Your task to perform on an android device: open the mobile data screen to see how much data has been used Image 0: 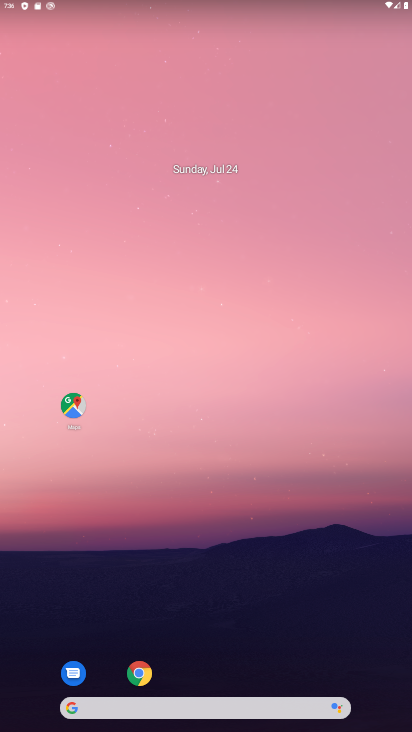
Step 0: drag from (225, 458) to (268, 60)
Your task to perform on an android device: open the mobile data screen to see how much data has been used Image 1: 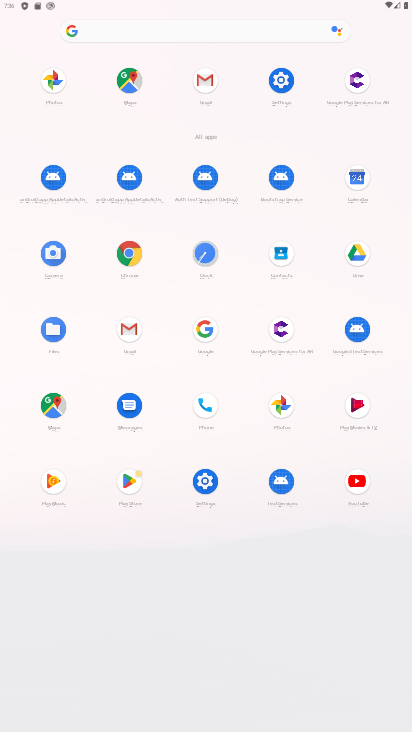
Step 1: click (276, 85)
Your task to perform on an android device: open the mobile data screen to see how much data has been used Image 2: 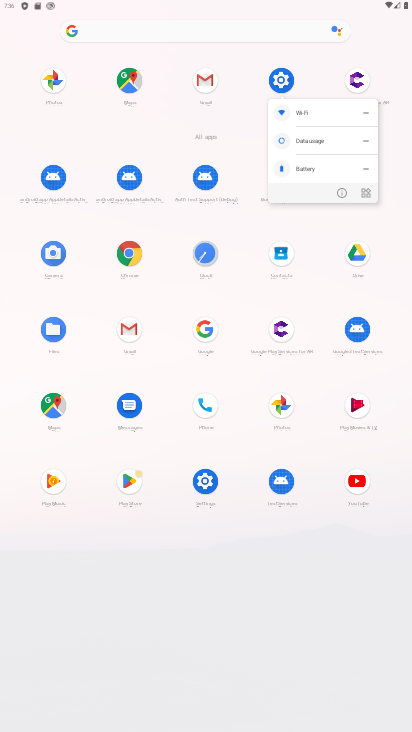
Step 2: click (345, 191)
Your task to perform on an android device: open the mobile data screen to see how much data has been used Image 3: 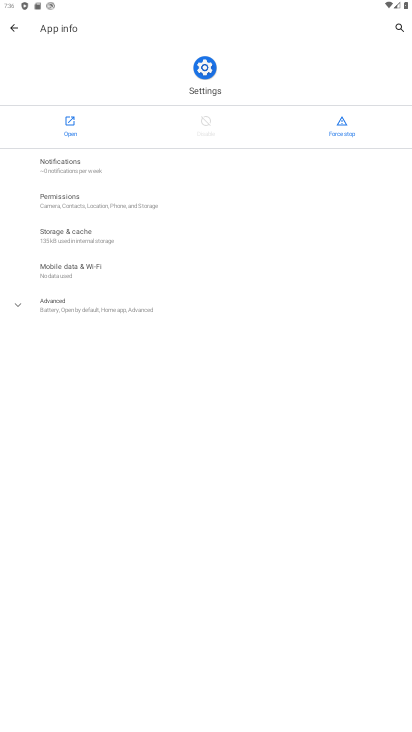
Step 3: click (72, 124)
Your task to perform on an android device: open the mobile data screen to see how much data has been used Image 4: 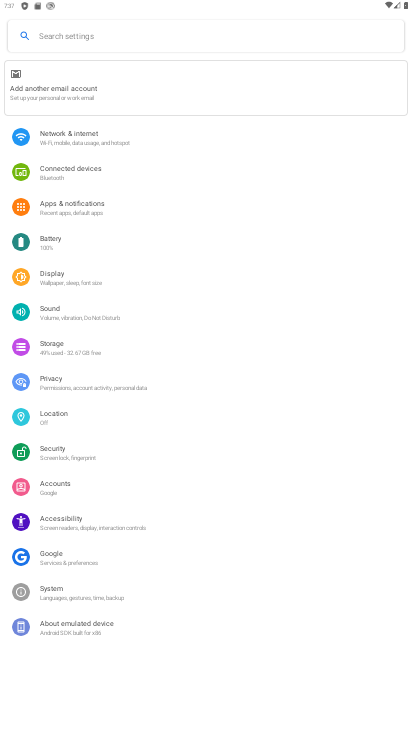
Step 4: click (89, 145)
Your task to perform on an android device: open the mobile data screen to see how much data has been used Image 5: 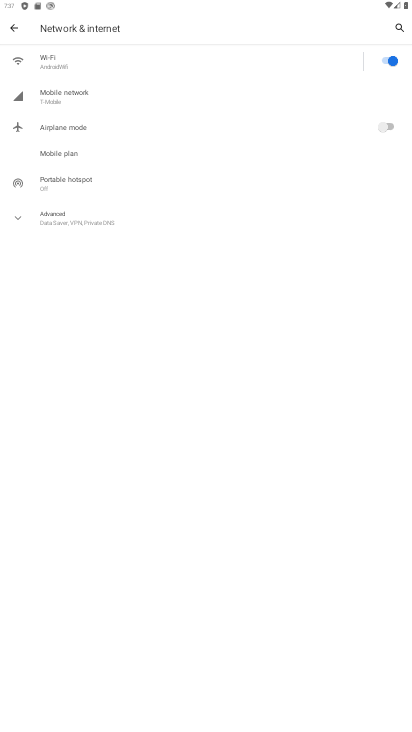
Step 5: click (108, 89)
Your task to perform on an android device: open the mobile data screen to see how much data has been used Image 6: 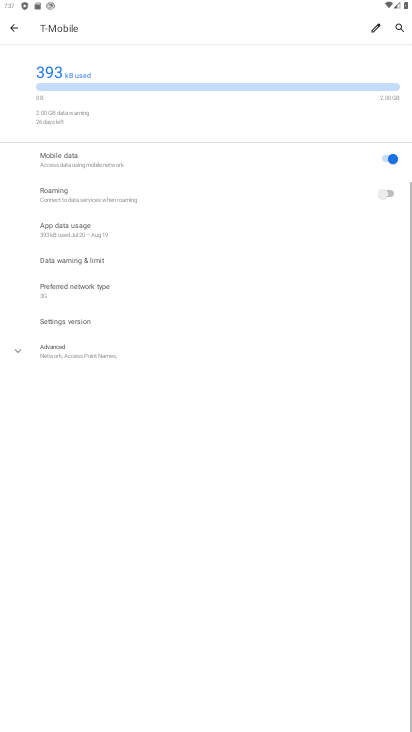
Step 6: task complete